Your task to perform on an android device: Do I have any events today? Image 0: 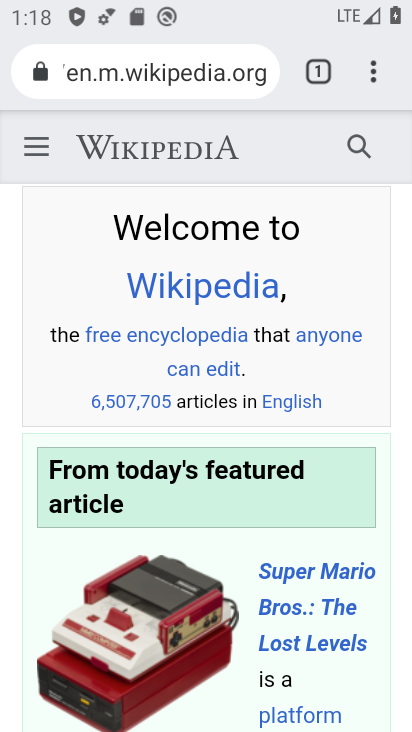
Step 0: press back button
Your task to perform on an android device: Do I have any events today? Image 1: 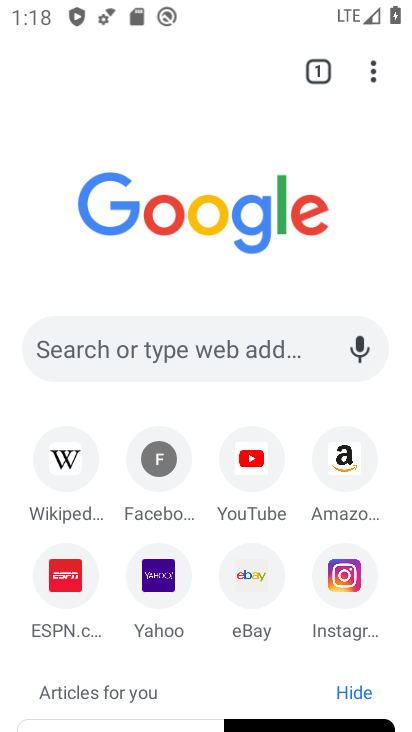
Step 1: press home button
Your task to perform on an android device: Do I have any events today? Image 2: 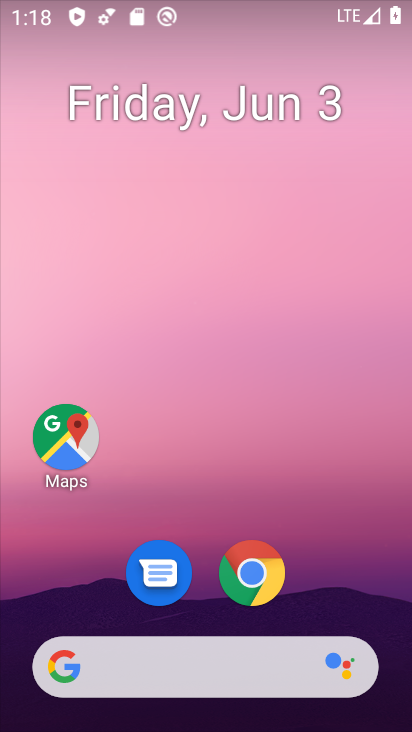
Step 2: drag from (355, 573) to (348, 195)
Your task to perform on an android device: Do I have any events today? Image 3: 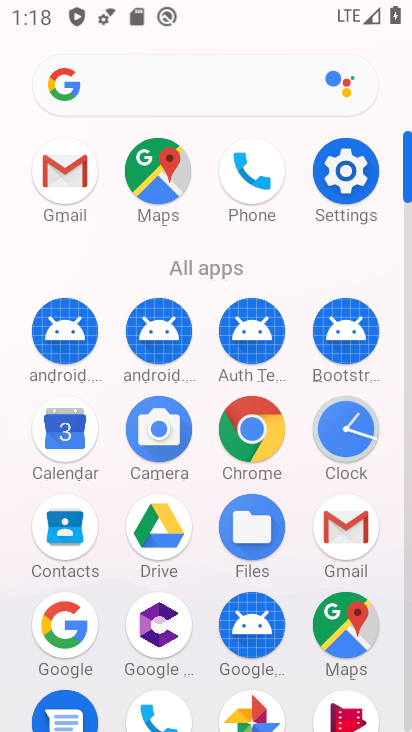
Step 3: click (69, 444)
Your task to perform on an android device: Do I have any events today? Image 4: 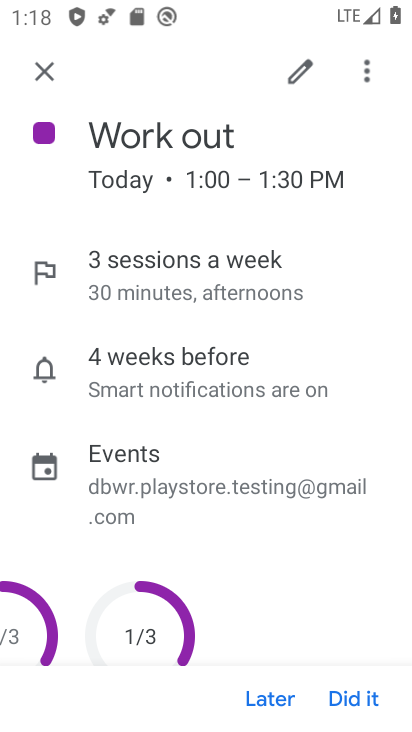
Step 4: click (47, 75)
Your task to perform on an android device: Do I have any events today? Image 5: 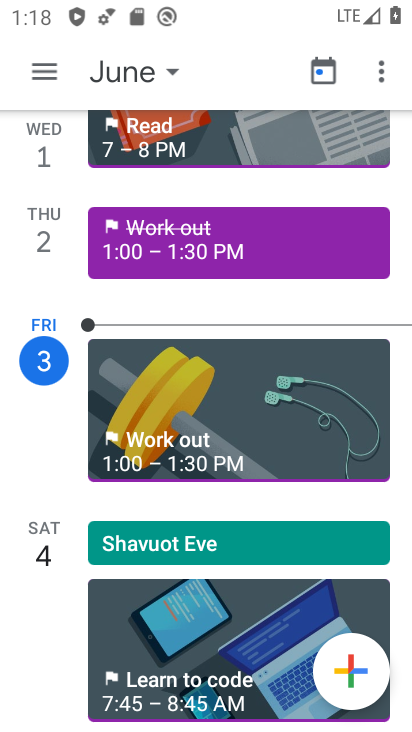
Step 5: click (182, 393)
Your task to perform on an android device: Do I have any events today? Image 6: 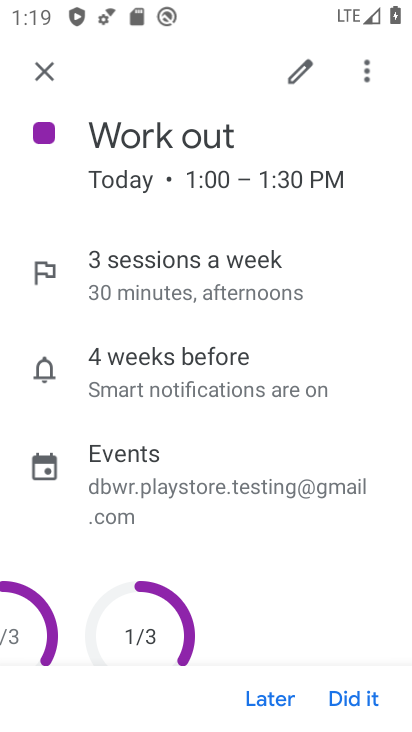
Step 6: task complete